Your task to perform on an android device: turn on location history Image 0: 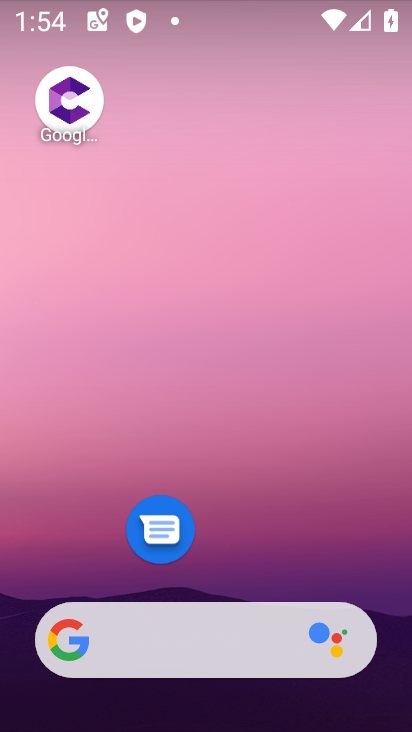
Step 0: drag from (209, 604) to (177, 41)
Your task to perform on an android device: turn on location history Image 1: 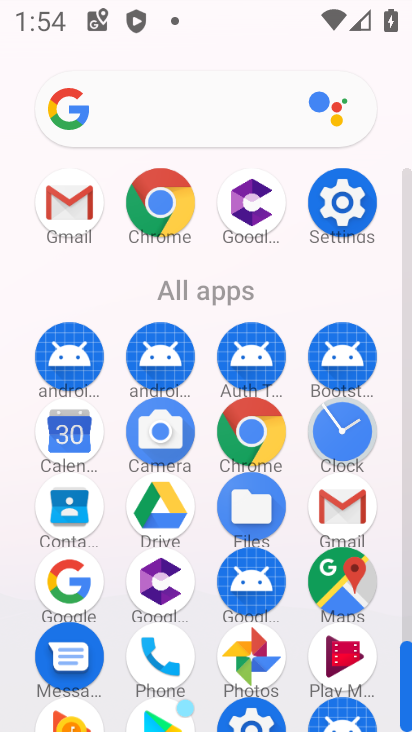
Step 1: click (342, 229)
Your task to perform on an android device: turn on location history Image 2: 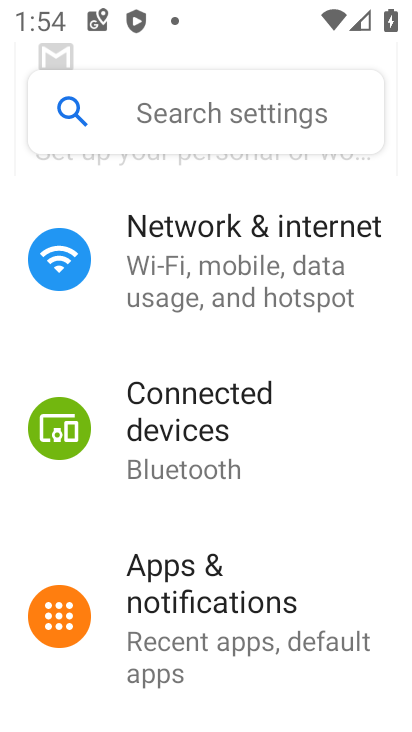
Step 2: drag from (313, 564) to (275, 96)
Your task to perform on an android device: turn on location history Image 3: 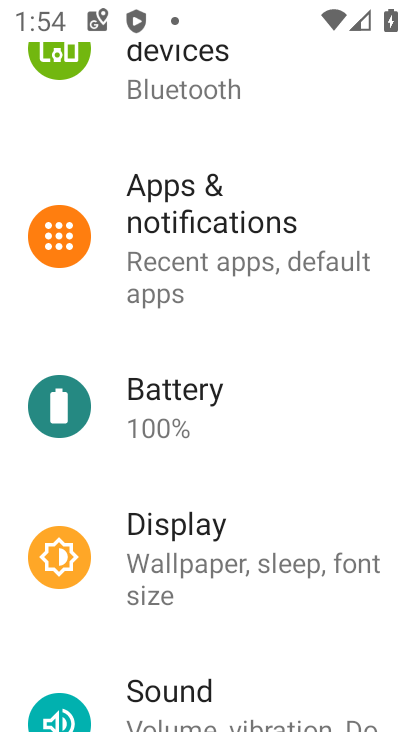
Step 3: drag from (268, 563) to (223, 115)
Your task to perform on an android device: turn on location history Image 4: 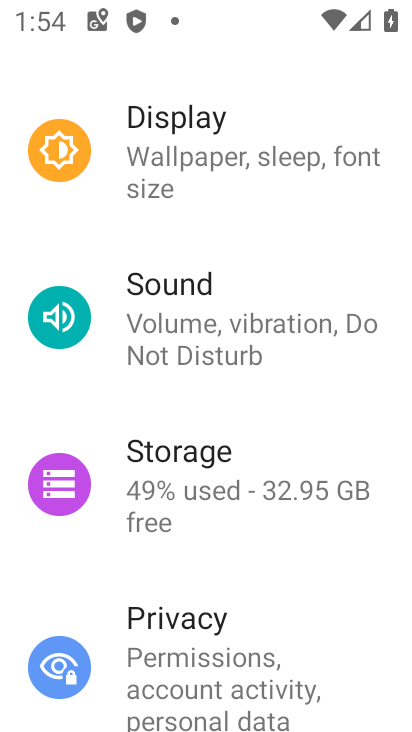
Step 4: drag from (254, 611) to (208, 136)
Your task to perform on an android device: turn on location history Image 5: 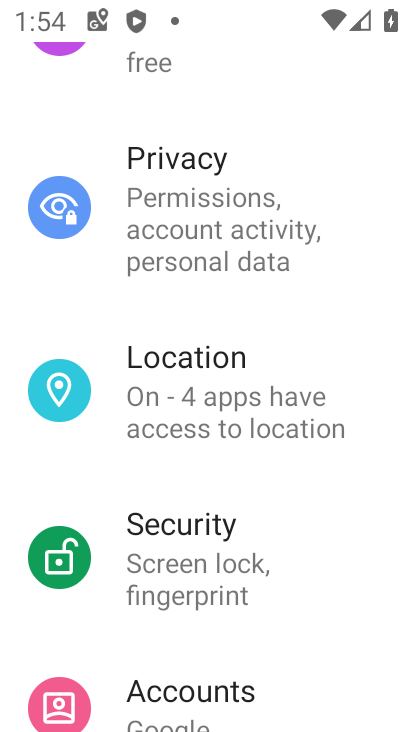
Step 5: click (209, 427)
Your task to perform on an android device: turn on location history Image 6: 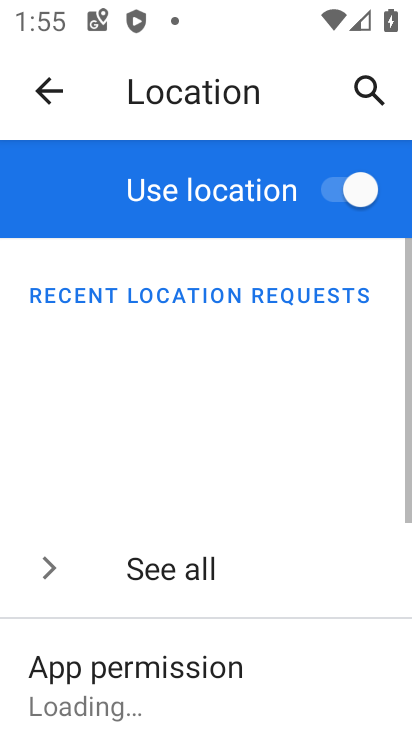
Step 6: drag from (221, 575) to (177, 44)
Your task to perform on an android device: turn on location history Image 7: 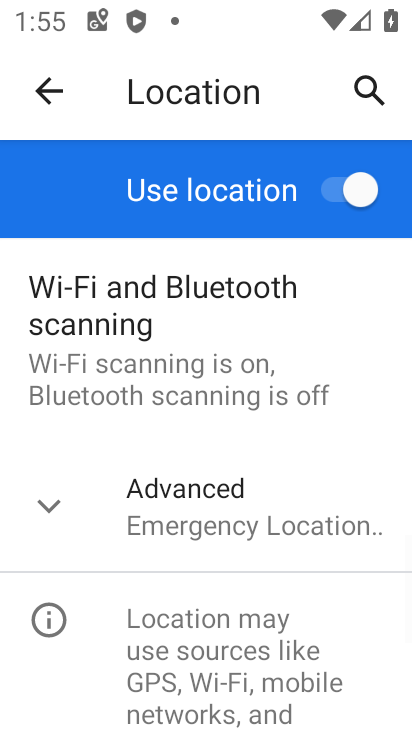
Step 7: drag from (244, 629) to (215, 479)
Your task to perform on an android device: turn on location history Image 8: 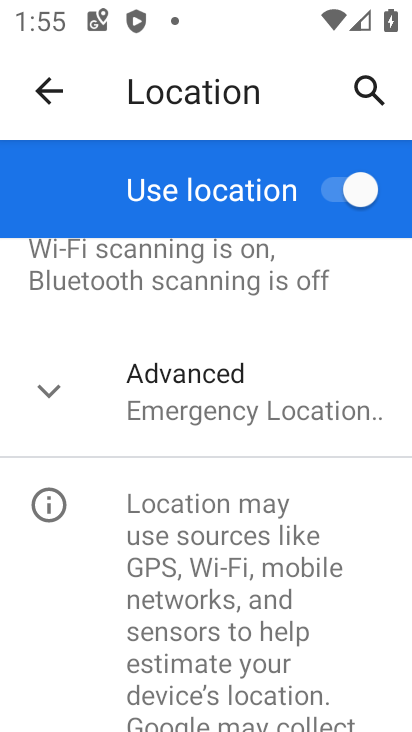
Step 8: click (210, 412)
Your task to perform on an android device: turn on location history Image 9: 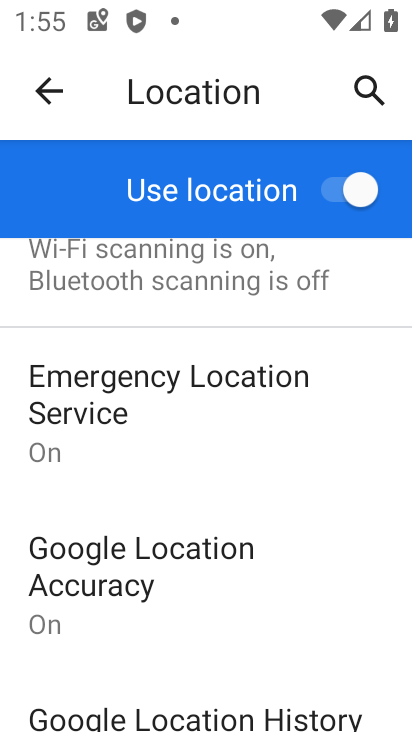
Step 9: click (256, 697)
Your task to perform on an android device: turn on location history Image 10: 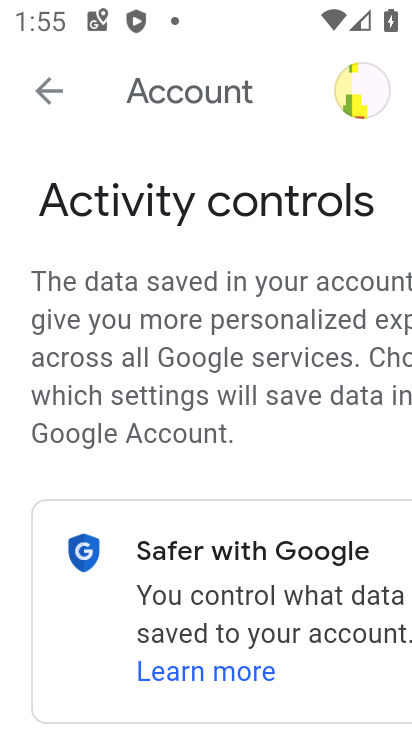
Step 10: drag from (280, 582) to (240, 118)
Your task to perform on an android device: turn on location history Image 11: 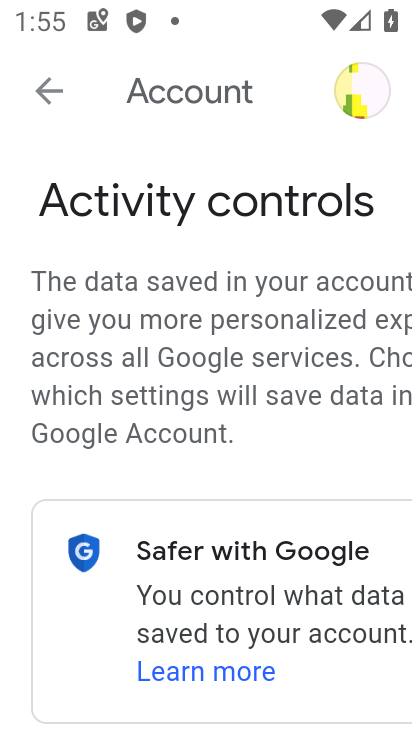
Step 11: drag from (322, 549) to (226, 107)
Your task to perform on an android device: turn on location history Image 12: 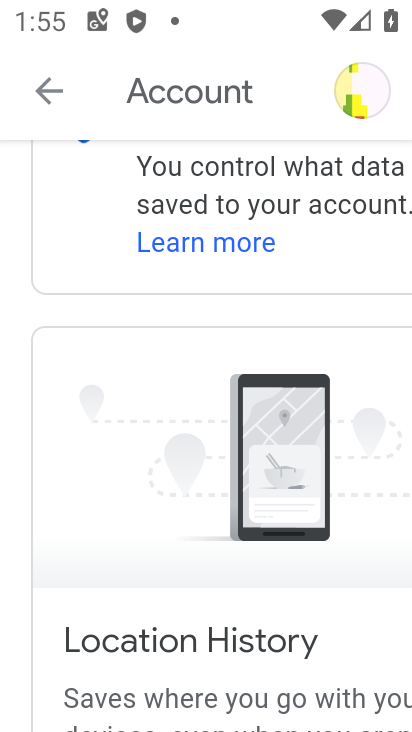
Step 12: drag from (308, 595) to (236, 123)
Your task to perform on an android device: turn on location history Image 13: 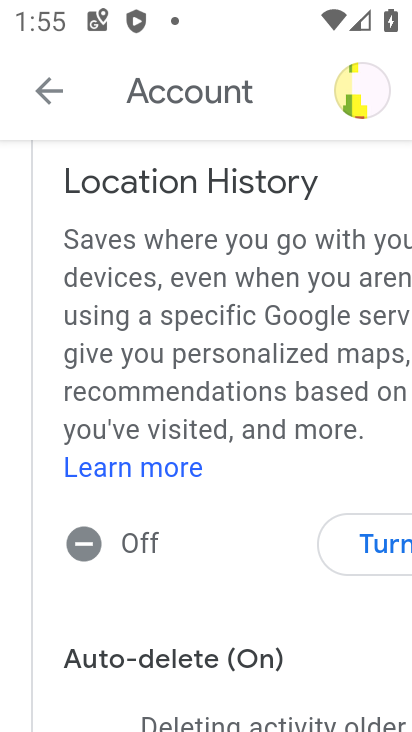
Step 13: click (375, 550)
Your task to perform on an android device: turn on location history Image 14: 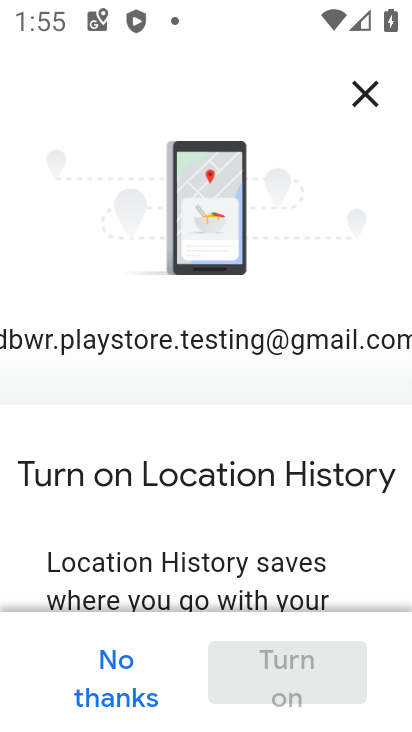
Step 14: click (341, 454)
Your task to perform on an android device: turn on location history Image 15: 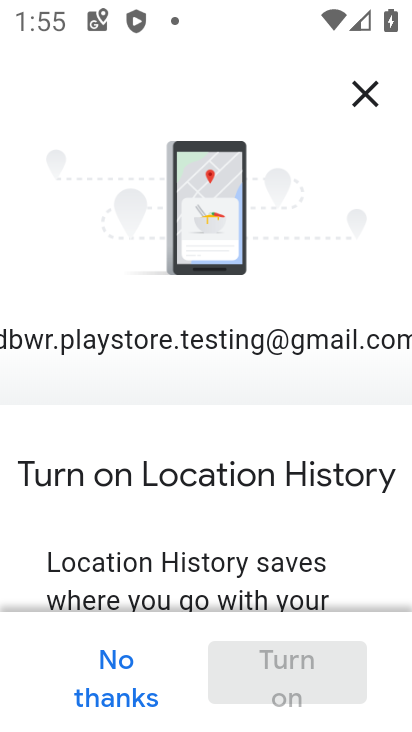
Step 15: drag from (321, 555) to (242, 68)
Your task to perform on an android device: turn on location history Image 16: 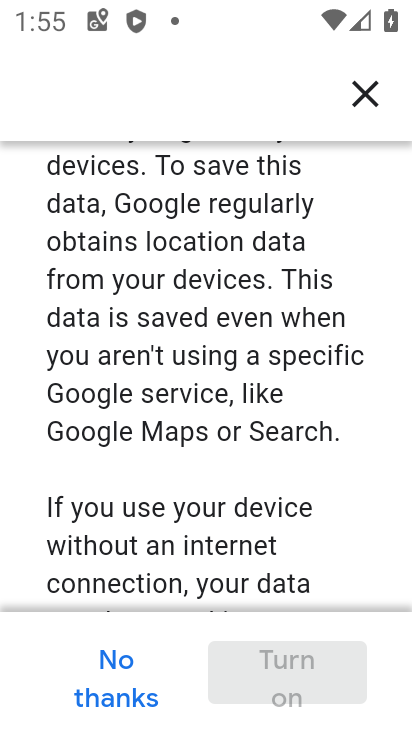
Step 16: drag from (287, 524) to (220, 13)
Your task to perform on an android device: turn on location history Image 17: 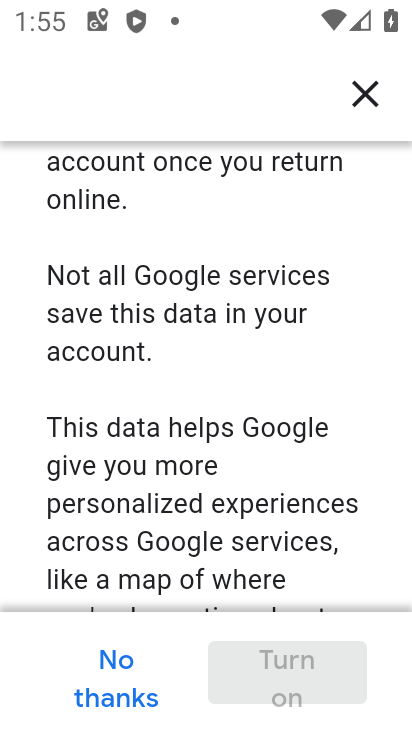
Step 17: drag from (284, 512) to (231, 79)
Your task to perform on an android device: turn on location history Image 18: 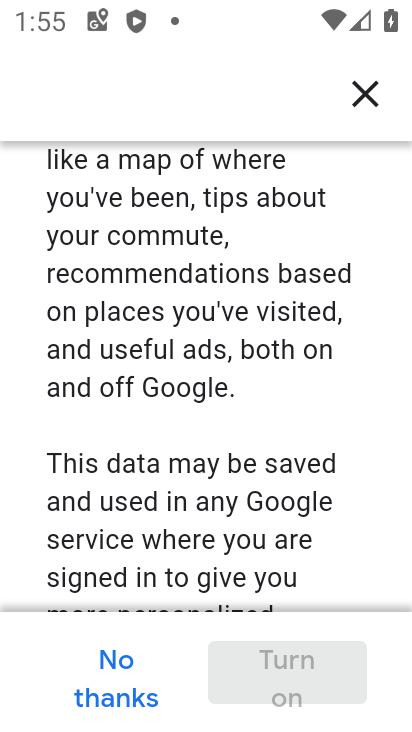
Step 18: drag from (255, 564) to (195, 0)
Your task to perform on an android device: turn on location history Image 19: 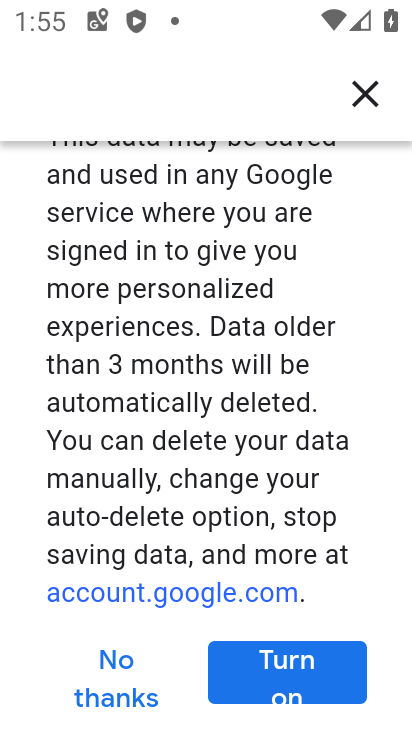
Step 19: click (280, 656)
Your task to perform on an android device: turn on location history Image 20: 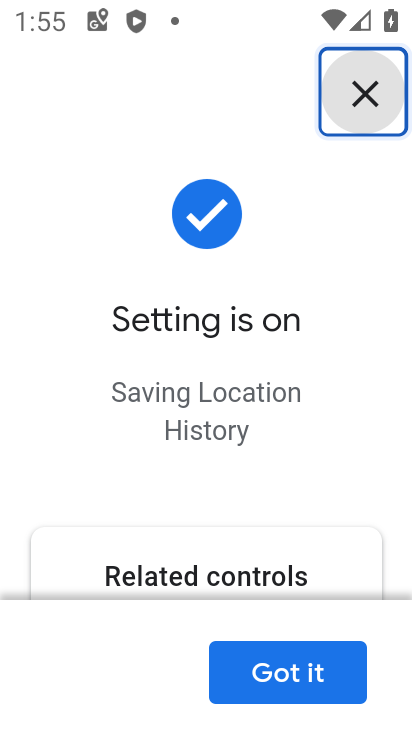
Step 20: click (288, 653)
Your task to perform on an android device: turn on location history Image 21: 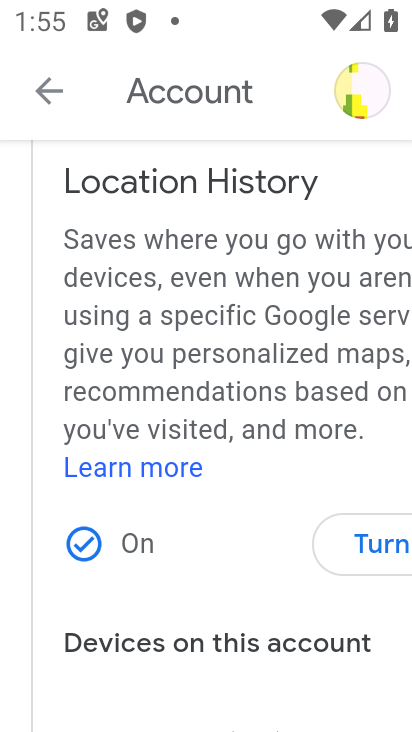
Step 21: task complete